Your task to perform on an android device: Go to location settings Image 0: 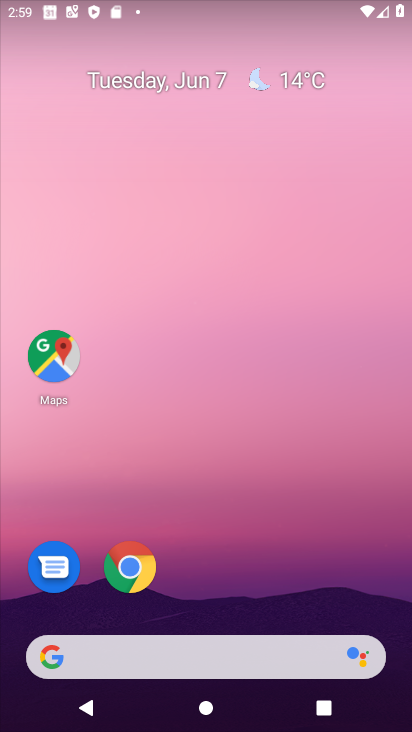
Step 0: drag from (206, 524) to (206, 123)
Your task to perform on an android device: Go to location settings Image 1: 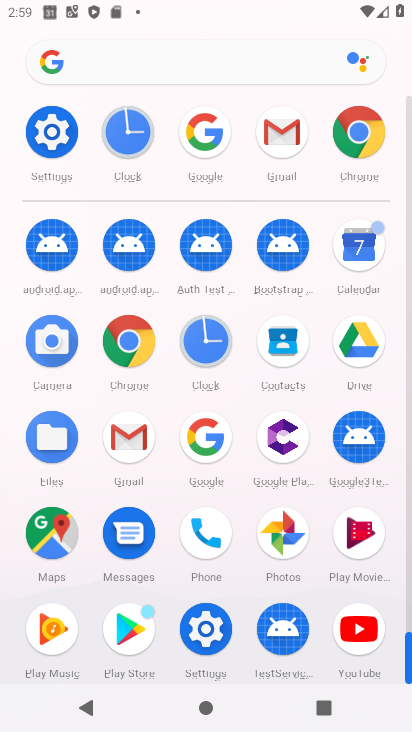
Step 1: click (36, 146)
Your task to perform on an android device: Go to location settings Image 2: 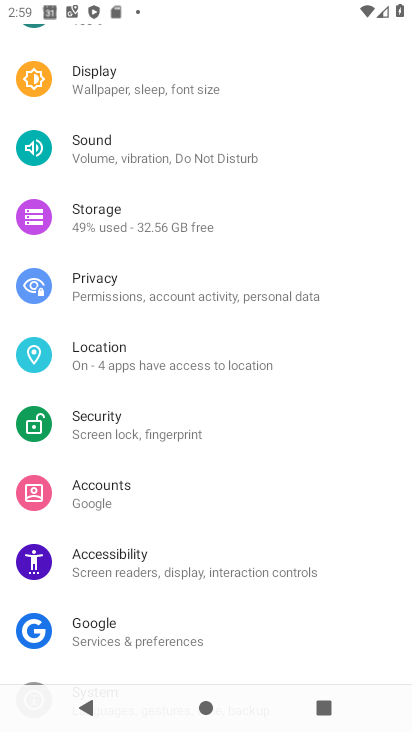
Step 2: click (119, 351)
Your task to perform on an android device: Go to location settings Image 3: 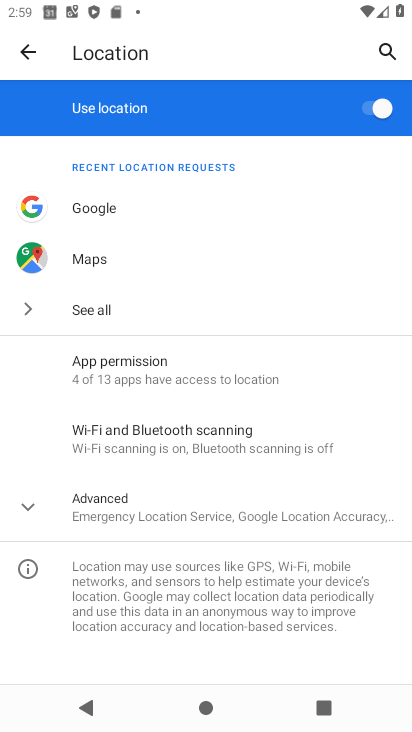
Step 3: task complete